Your task to perform on an android device: Show me the alarms in the clock app Image 0: 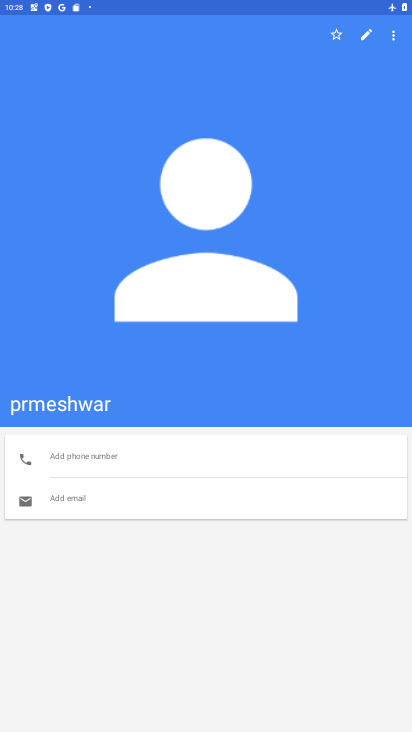
Step 0: press home button
Your task to perform on an android device: Show me the alarms in the clock app Image 1: 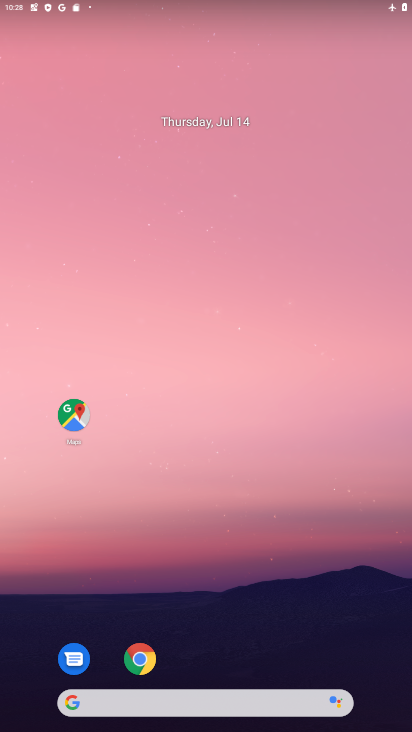
Step 1: drag from (335, 586) to (305, 283)
Your task to perform on an android device: Show me the alarms in the clock app Image 2: 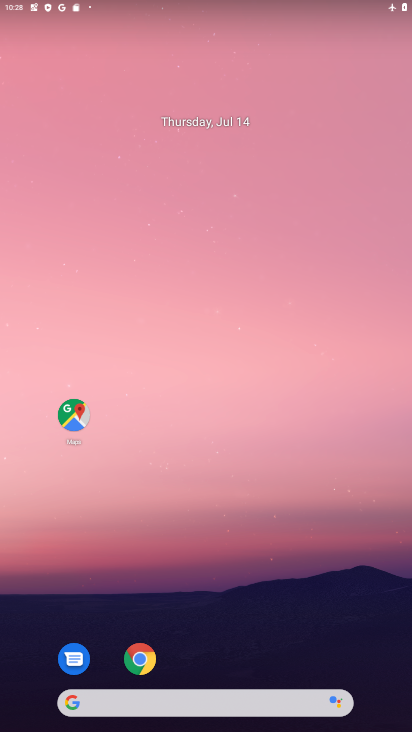
Step 2: drag from (278, 593) to (266, 251)
Your task to perform on an android device: Show me the alarms in the clock app Image 3: 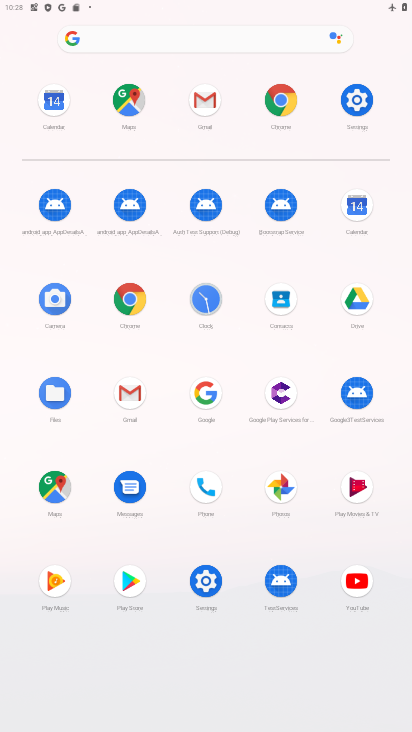
Step 3: click (205, 300)
Your task to perform on an android device: Show me the alarms in the clock app Image 4: 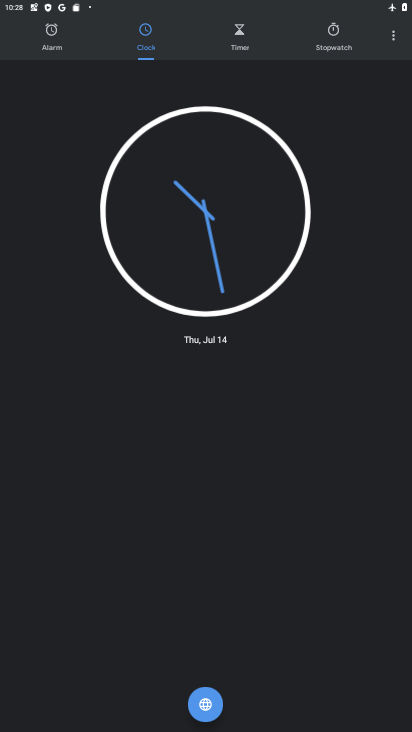
Step 4: click (58, 42)
Your task to perform on an android device: Show me the alarms in the clock app Image 5: 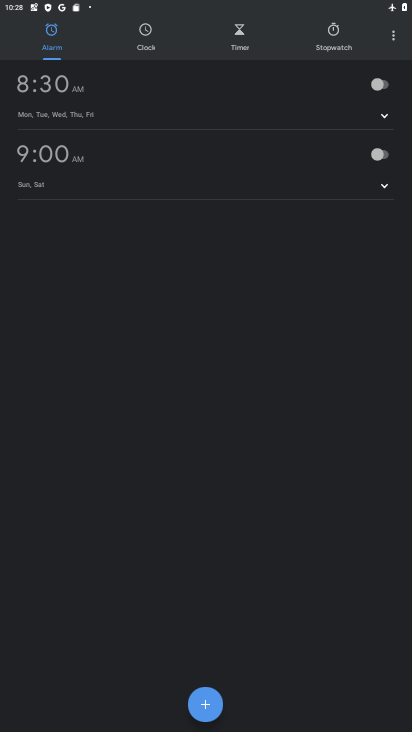
Step 5: task complete